Your task to perform on an android device: Turn on the flashlight Image 0: 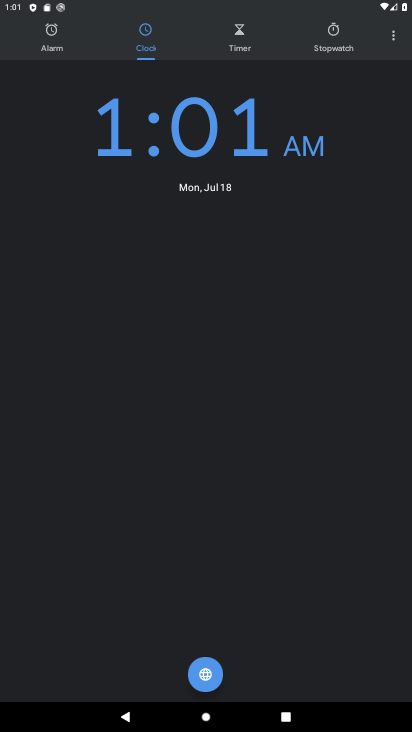
Step 0: drag from (167, 9) to (223, 596)
Your task to perform on an android device: Turn on the flashlight Image 1: 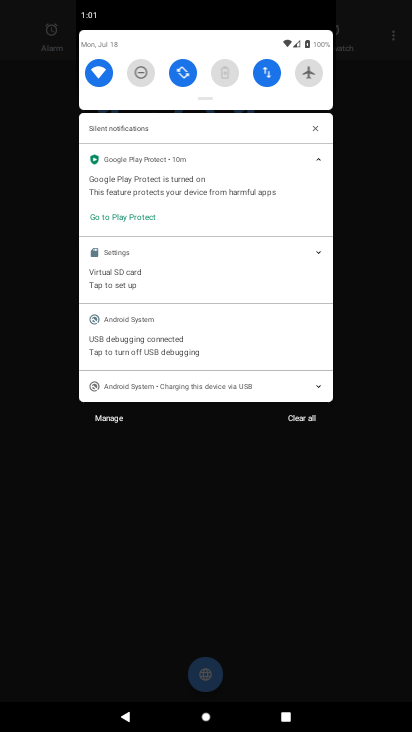
Step 1: drag from (196, 52) to (218, 473)
Your task to perform on an android device: Turn on the flashlight Image 2: 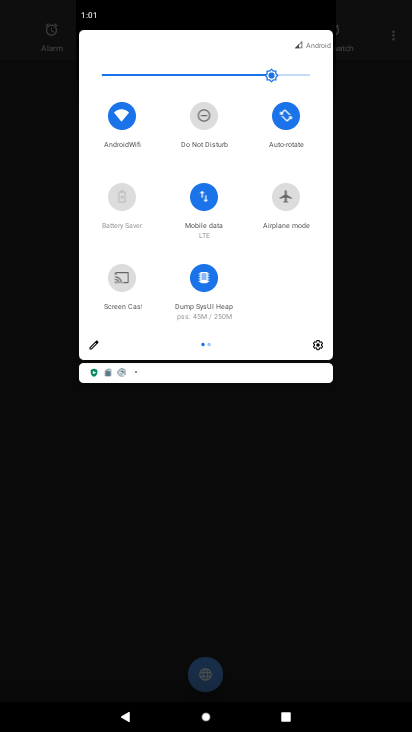
Step 2: click (319, 342)
Your task to perform on an android device: Turn on the flashlight Image 3: 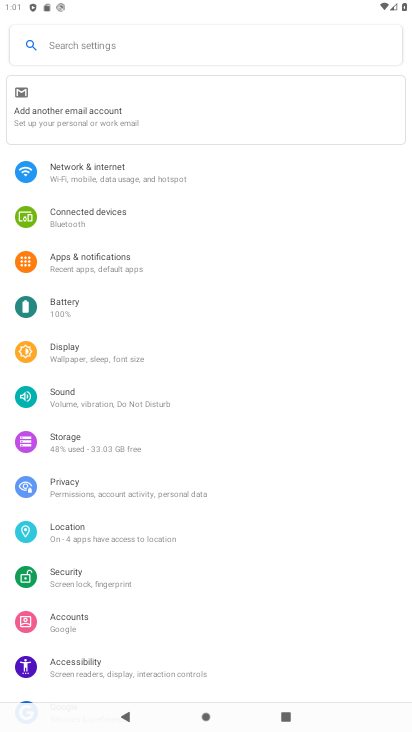
Step 3: task complete